Your task to perform on an android device: check google app version Image 0: 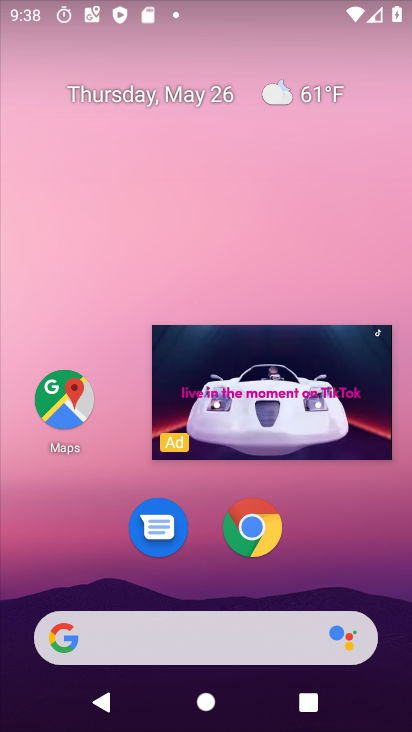
Step 0: click (361, 355)
Your task to perform on an android device: check google app version Image 1: 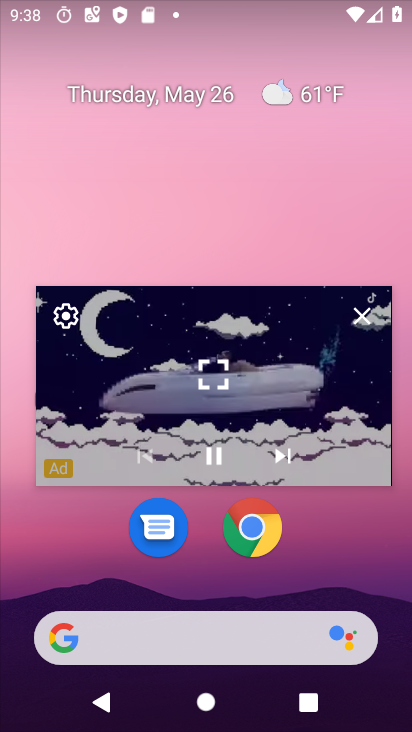
Step 1: click (352, 316)
Your task to perform on an android device: check google app version Image 2: 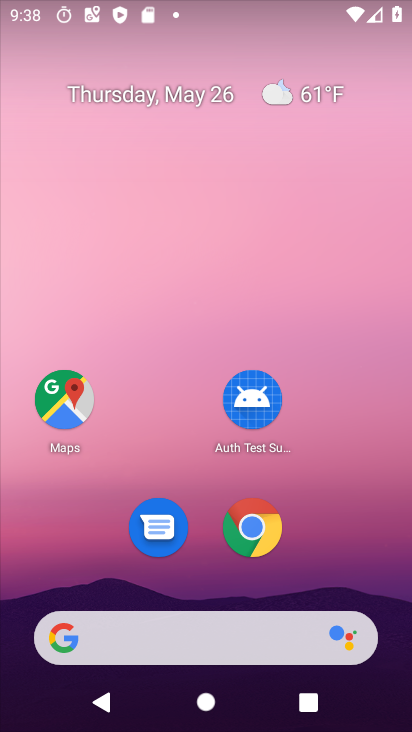
Step 2: drag from (335, 529) to (385, 6)
Your task to perform on an android device: check google app version Image 3: 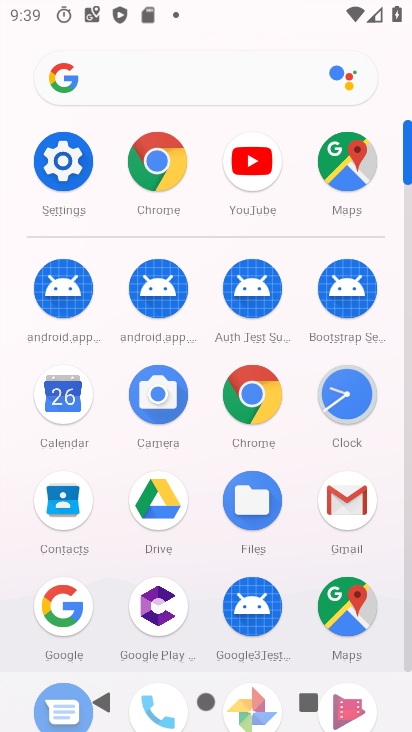
Step 3: click (62, 612)
Your task to perform on an android device: check google app version Image 4: 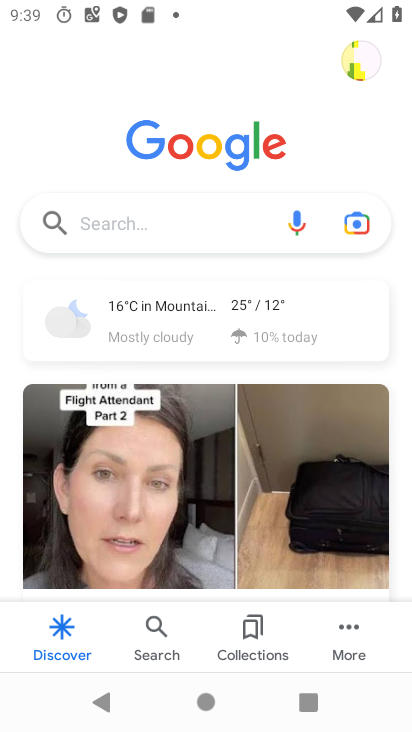
Step 4: click (370, 655)
Your task to perform on an android device: check google app version Image 5: 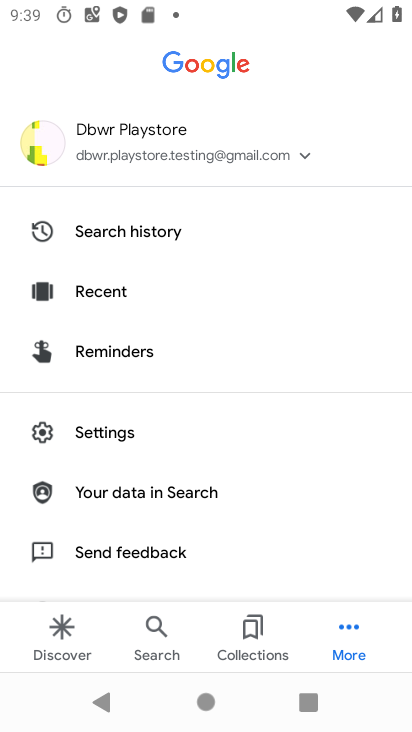
Step 5: drag from (245, 519) to (290, 37)
Your task to perform on an android device: check google app version Image 6: 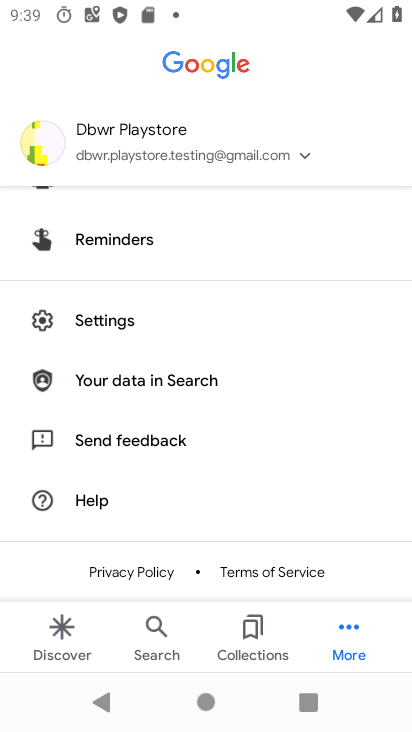
Step 6: click (91, 333)
Your task to perform on an android device: check google app version Image 7: 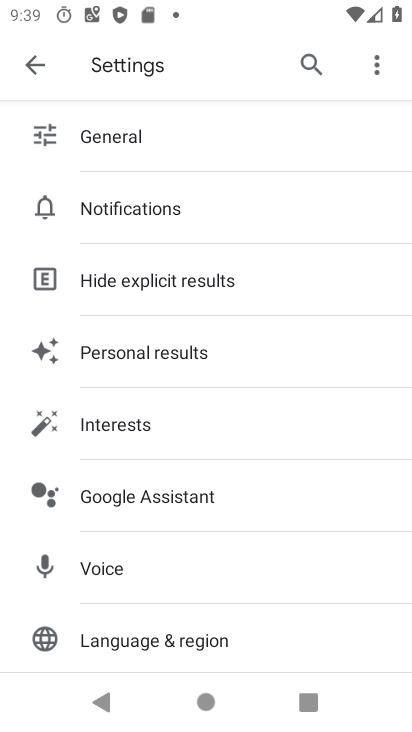
Step 7: drag from (215, 559) to (221, 94)
Your task to perform on an android device: check google app version Image 8: 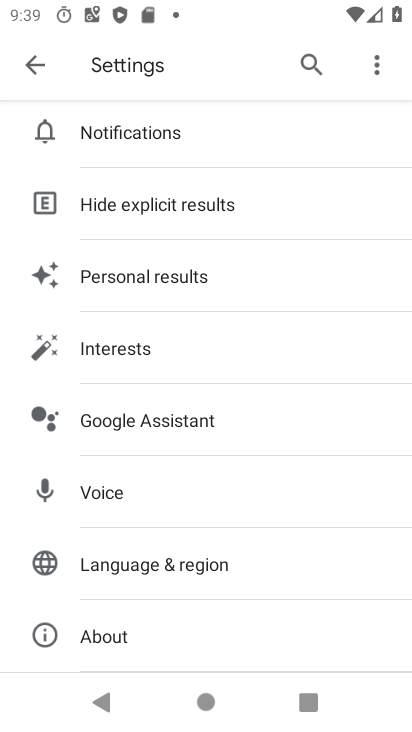
Step 8: click (139, 639)
Your task to perform on an android device: check google app version Image 9: 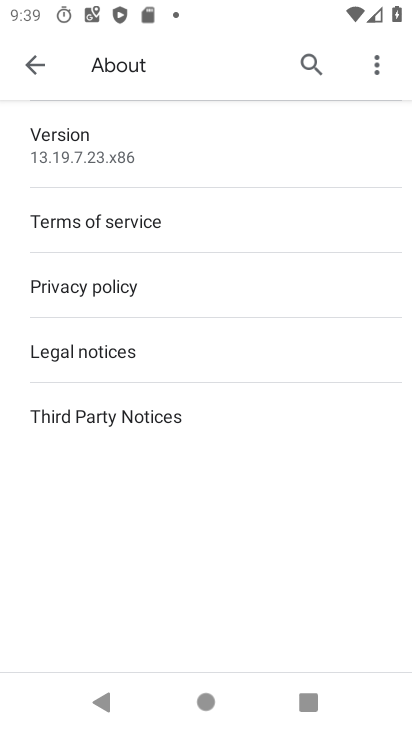
Step 9: click (115, 160)
Your task to perform on an android device: check google app version Image 10: 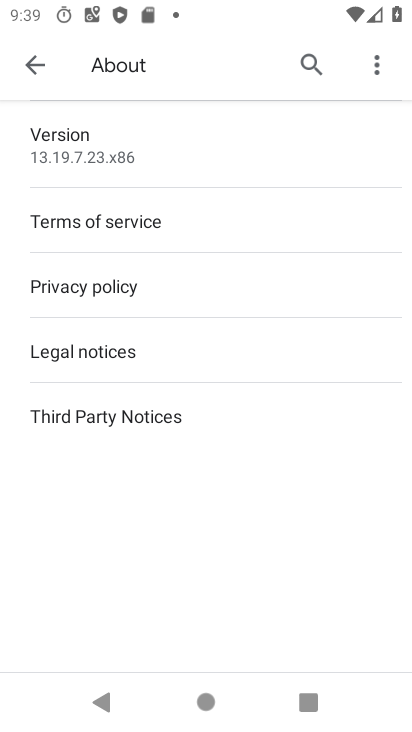
Step 10: task complete